Your task to perform on an android device: add a label to a message in the gmail app Image 0: 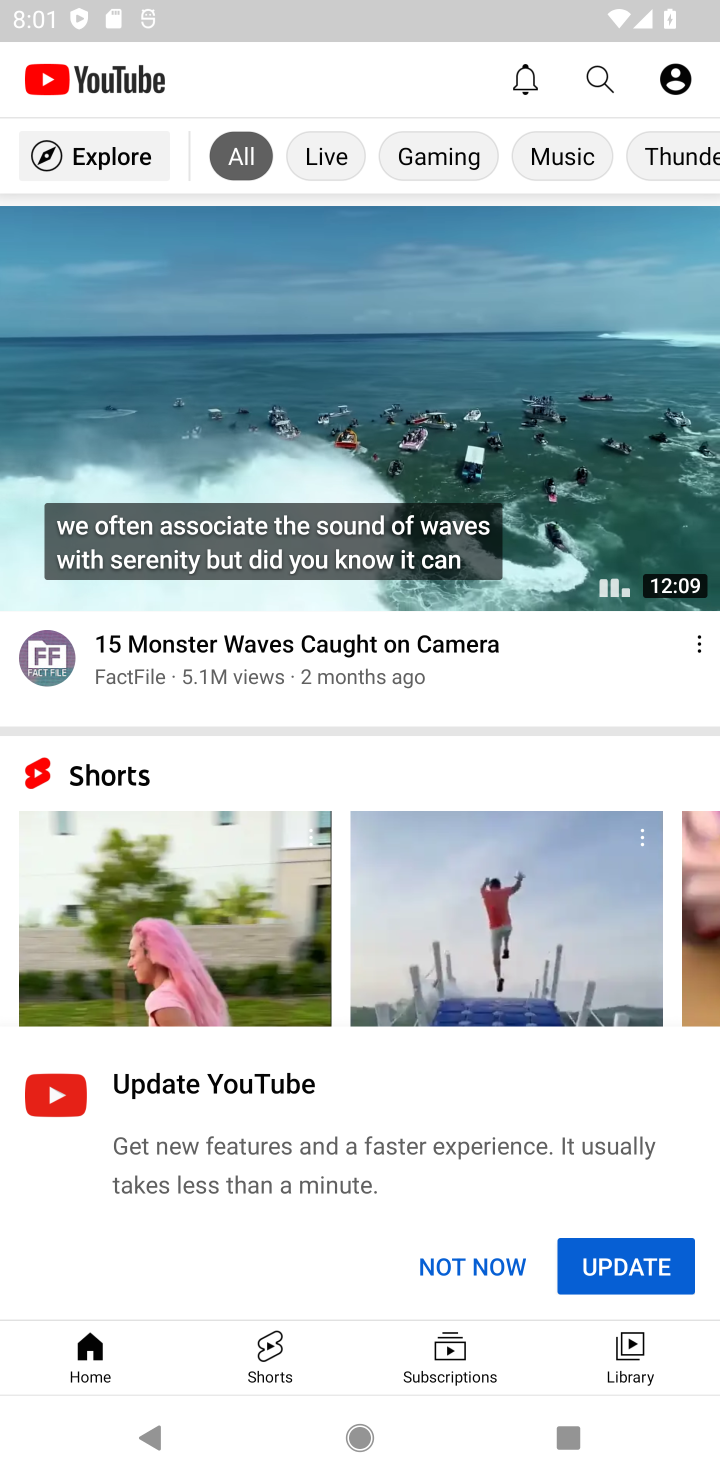
Step 0: press home button
Your task to perform on an android device: add a label to a message in the gmail app Image 1: 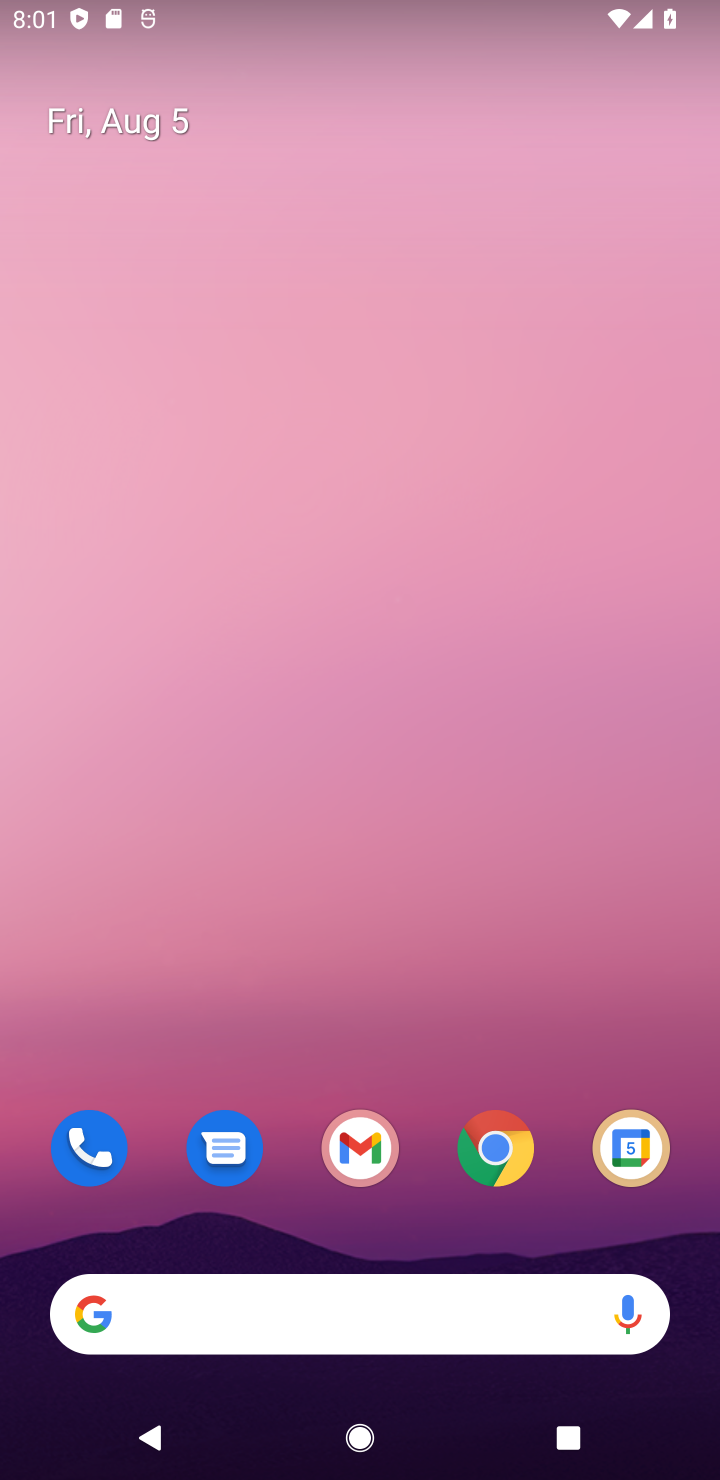
Step 1: click (397, 1134)
Your task to perform on an android device: add a label to a message in the gmail app Image 2: 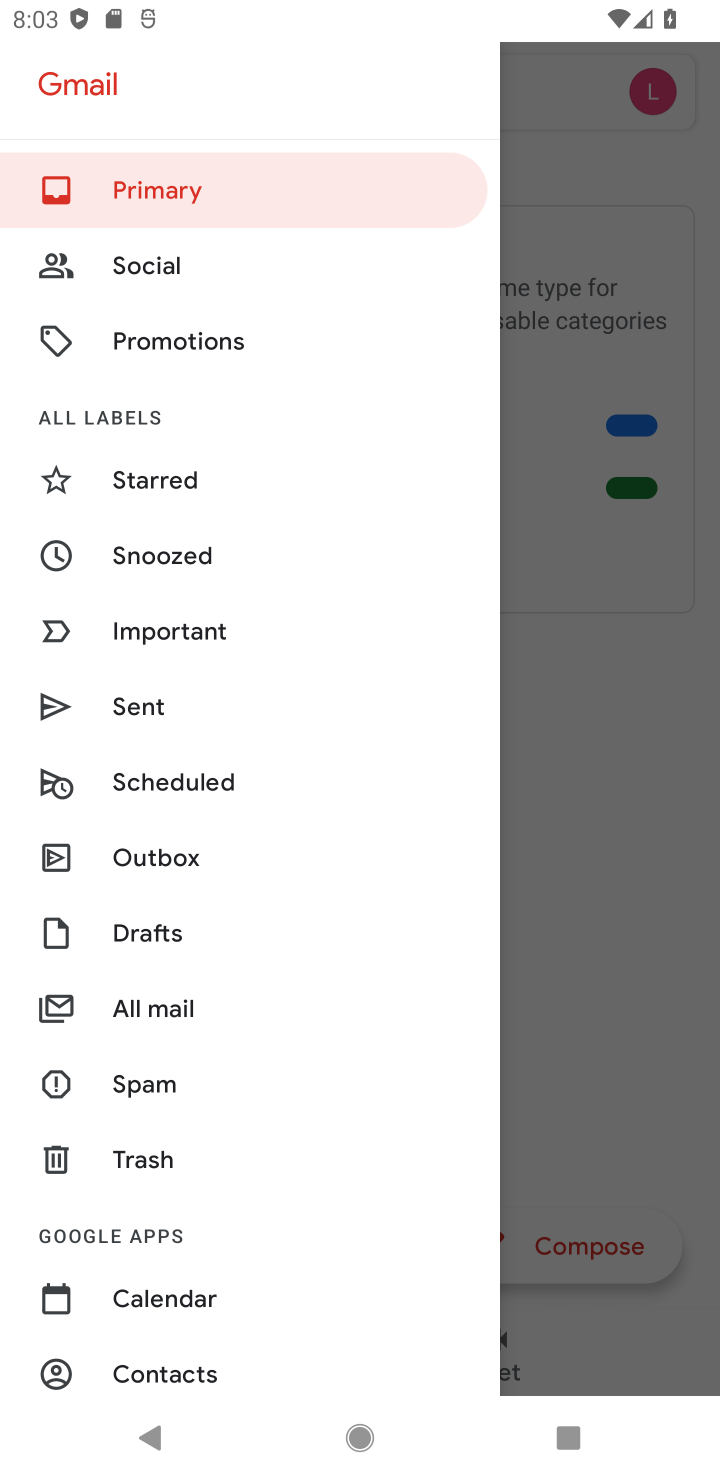
Step 2: click (562, 887)
Your task to perform on an android device: add a label to a message in the gmail app Image 3: 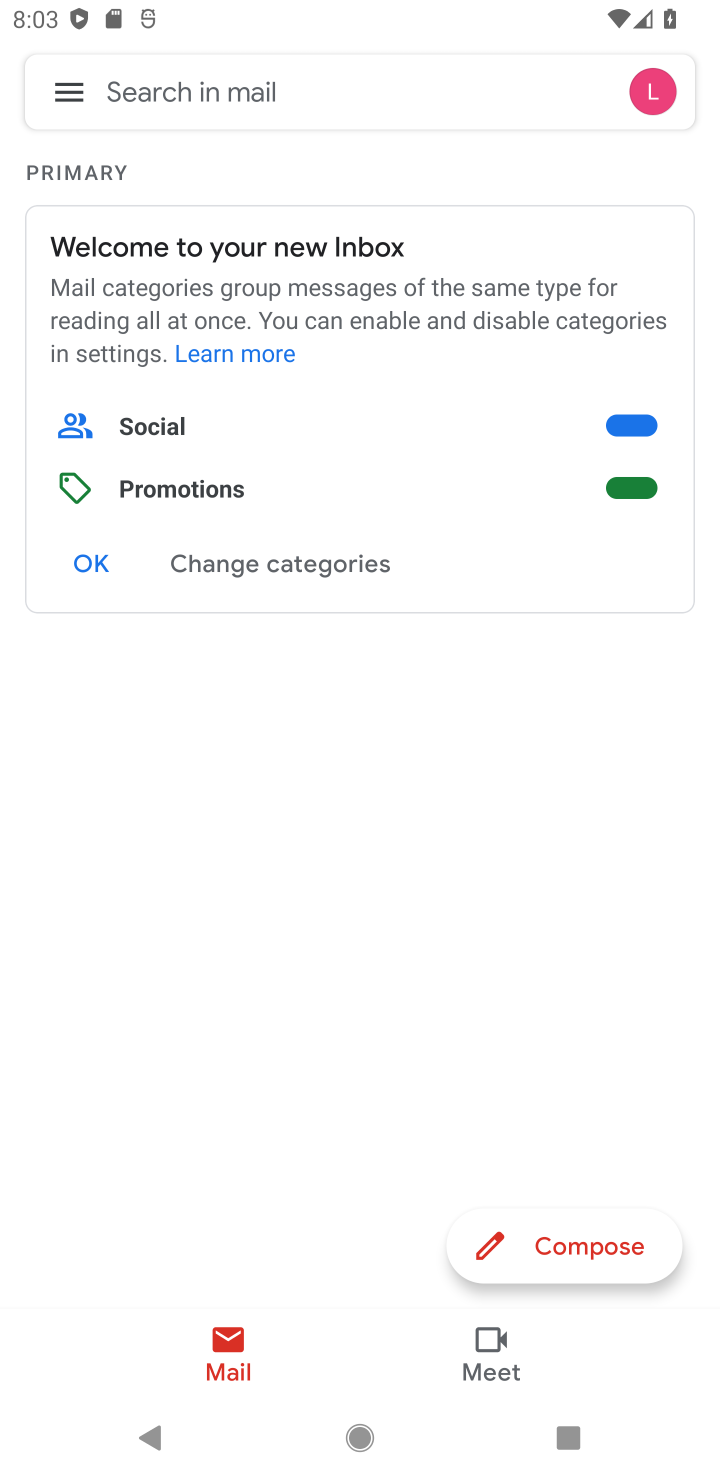
Step 3: task complete